Your task to perform on an android device: Open sound settings Image 0: 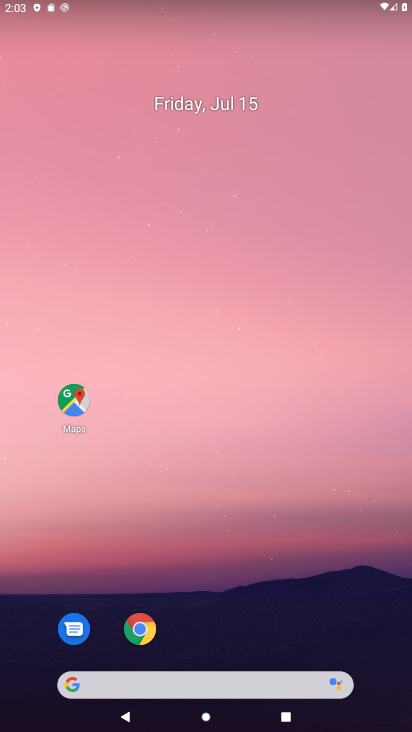
Step 0: drag from (400, 626) to (288, 171)
Your task to perform on an android device: Open sound settings Image 1: 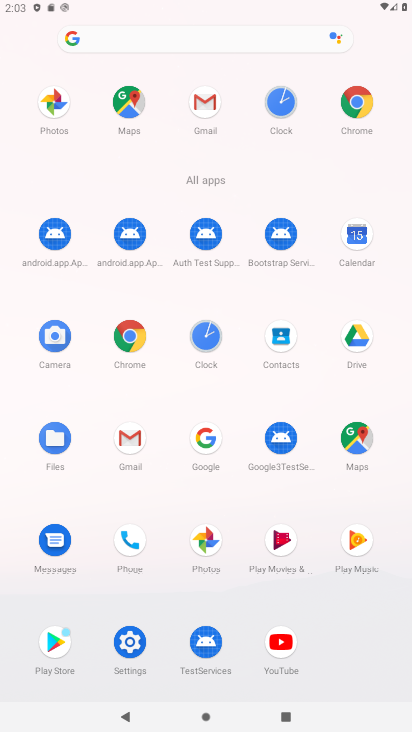
Step 1: click (123, 641)
Your task to perform on an android device: Open sound settings Image 2: 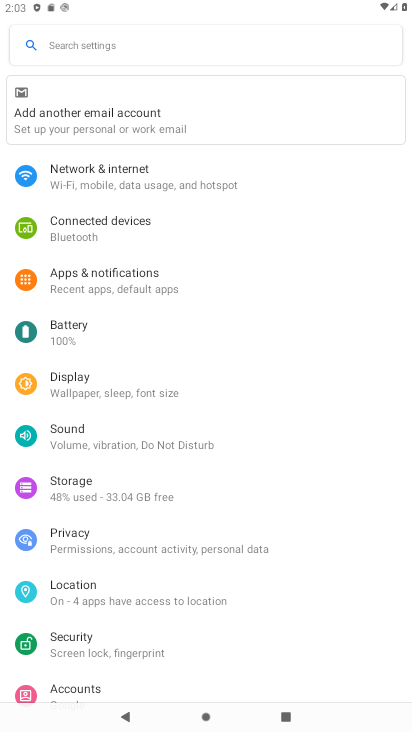
Step 2: click (152, 446)
Your task to perform on an android device: Open sound settings Image 3: 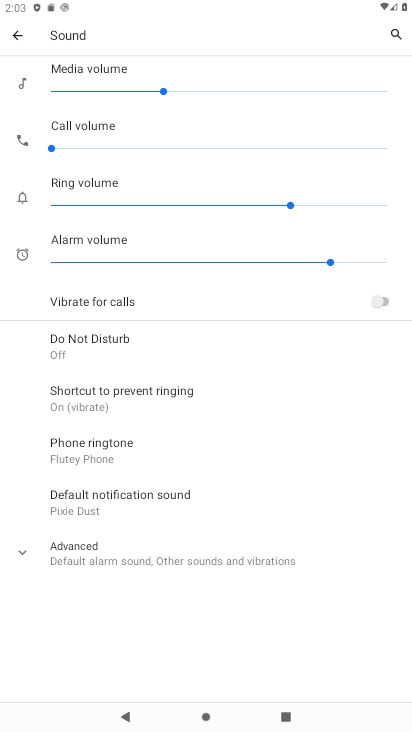
Step 3: task complete